Your task to perform on an android device: toggle pop-ups in chrome Image 0: 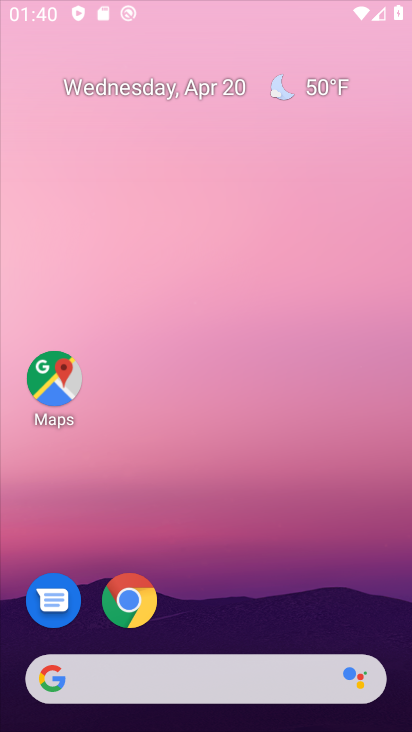
Step 0: click (225, 128)
Your task to perform on an android device: toggle pop-ups in chrome Image 1: 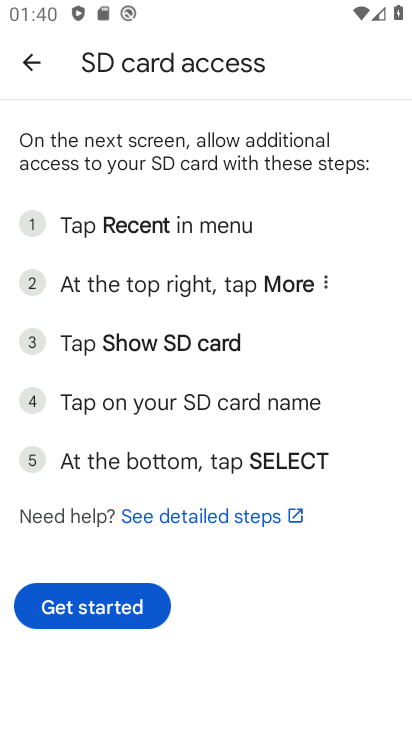
Step 1: press home button
Your task to perform on an android device: toggle pop-ups in chrome Image 2: 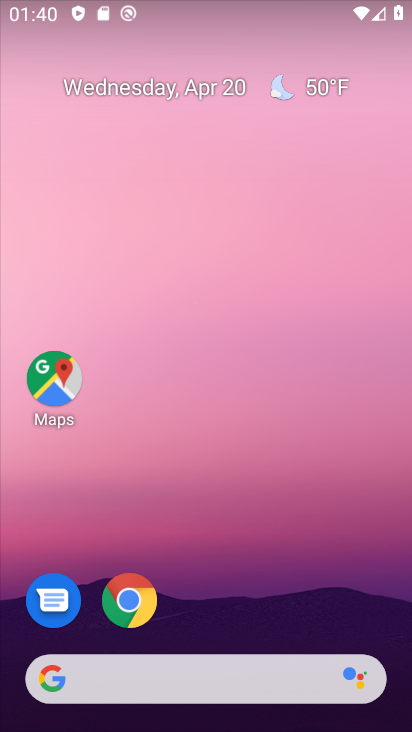
Step 2: click (130, 600)
Your task to perform on an android device: toggle pop-ups in chrome Image 3: 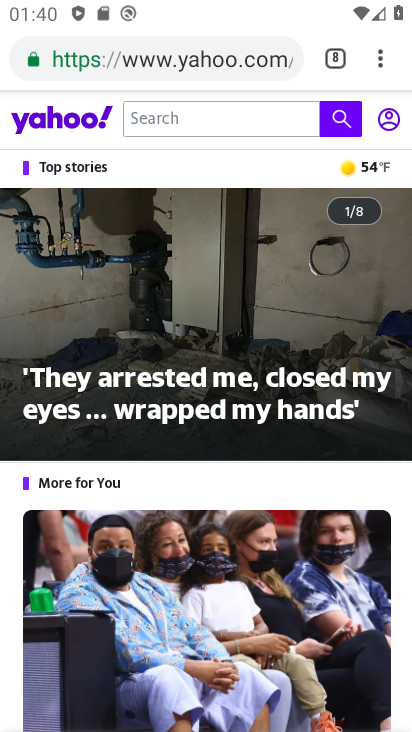
Step 3: drag from (378, 63) to (209, 632)
Your task to perform on an android device: toggle pop-ups in chrome Image 4: 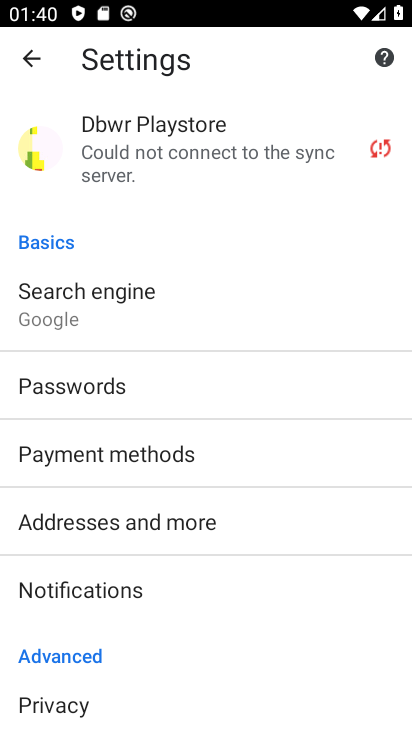
Step 4: drag from (176, 628) to (244, 185)
Your task to perform on an android device: toggle pop-ups in chrome Image 5: 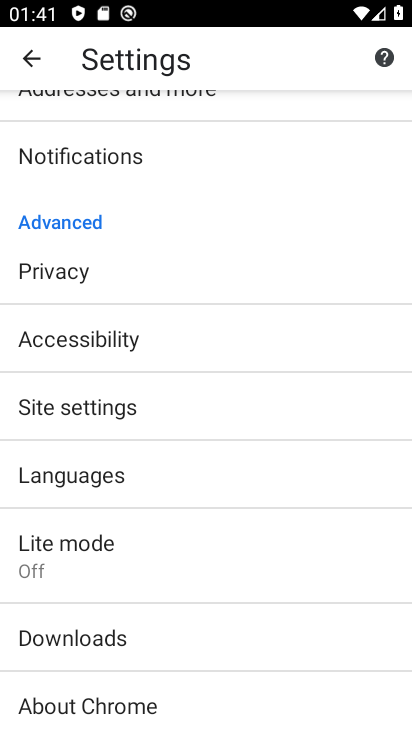
Step 5: click (209, 399)
Your task to perform on an android device: toggle pop-ups in chrome Image 6: 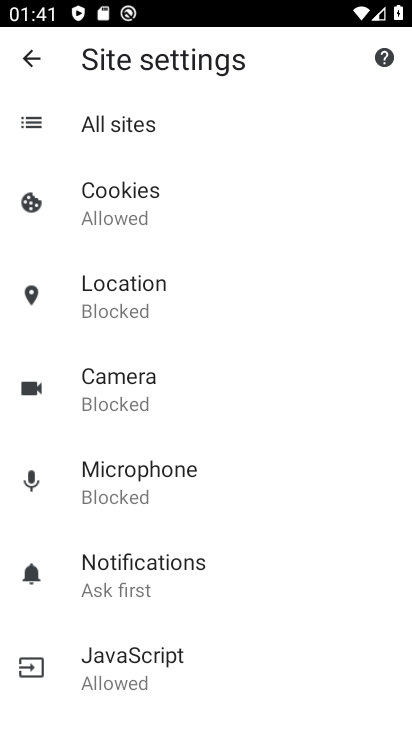
Step 6: drag from (207, 657) to (230, 270)
Your task to perform on an android device: toggle pop-ups in chrome Image 7: 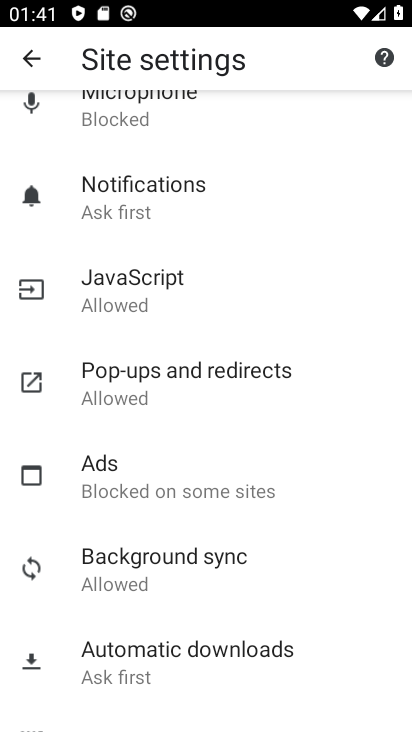
Step 7: click (197, 358)
Your task to perform on an android device: toggle pop-ups in chrome Image 8: 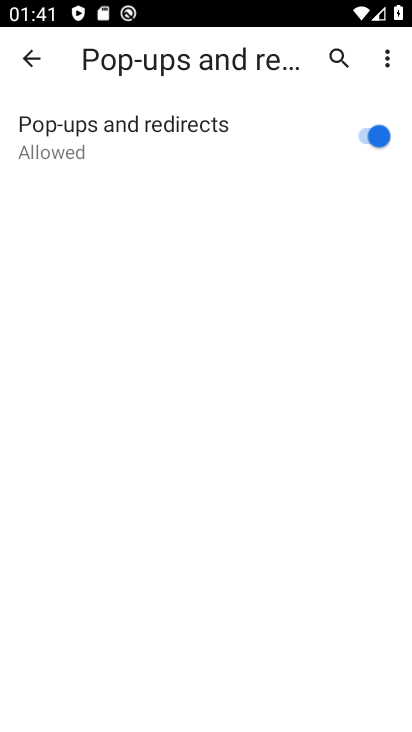
Step 8: click (369, 136)
Your task to perform on an android device: toggle pop-ups in chrome Image 9: 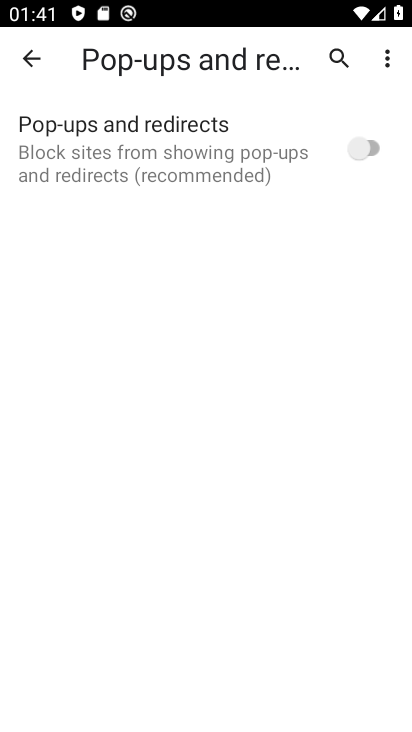
Step 9: task complete